Your task to perform on an android device: Open wifi settings Image 0: 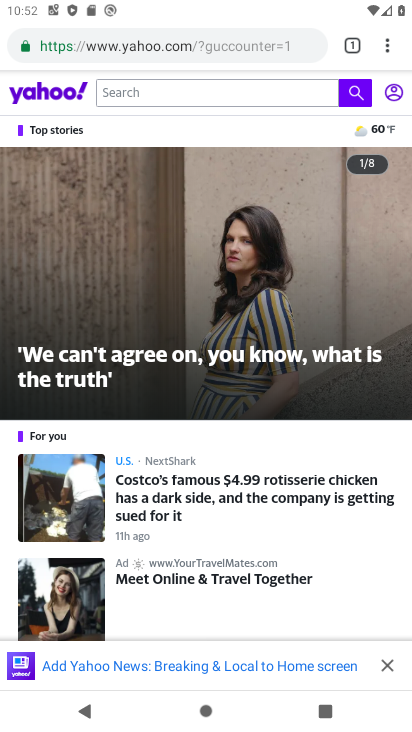
Step 0: press home button
Your task to perform on an android device: Open wifi settings Image 1: 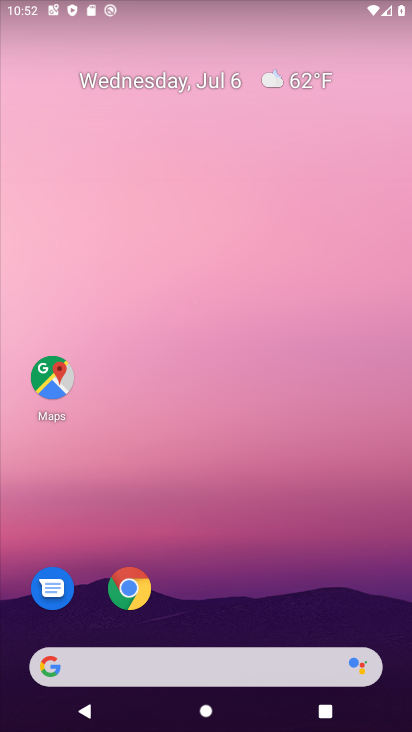
Step 1: drag from (349, 600) to (303, 197)
Your task to perform on an android device: Open wifi settings Image 2: 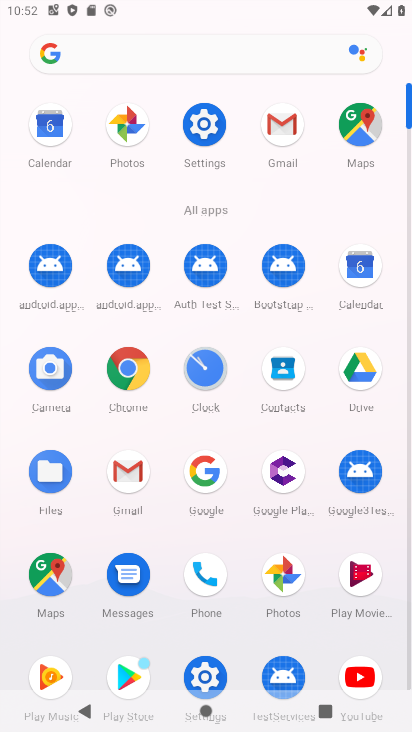
Step 2: click (201, 672)
Your task to perform on an android device: Open wifi settings Image 3: 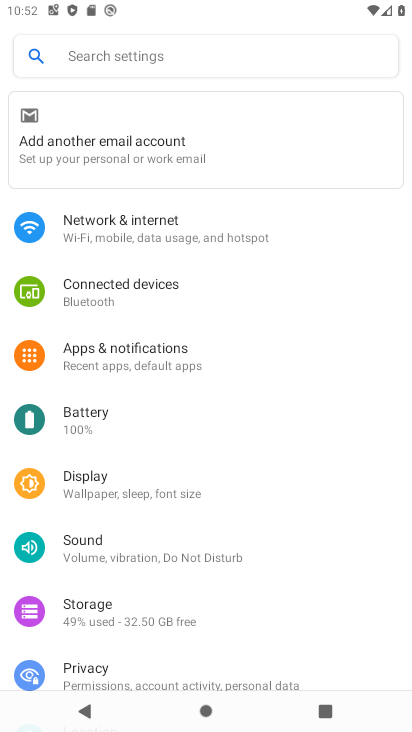
Step 3: click (125, 217)
Your task to perform on an android device: Open wifi settings Image 4: 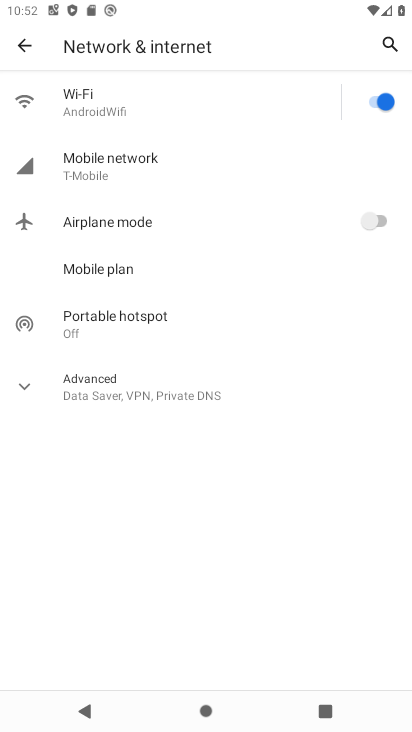
Step 4: click (69, 92)
Your task to perform on an android device: Open wifi settings Image 5: 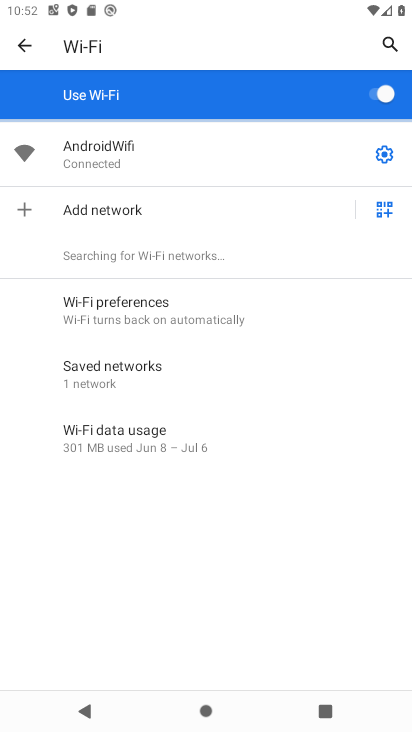
Step 5: task complete